Your task to perform on an android device: add a label to a message in the gmail app Image 0: 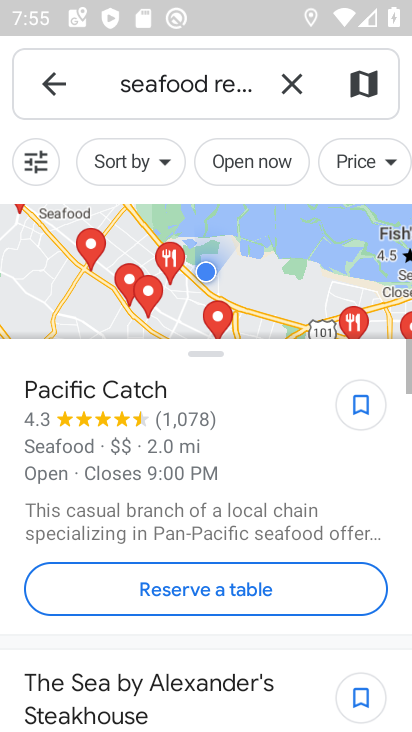
Step 0: press home button
Your task to perform on an android device: add a label to a message in the gmail app Image 1: 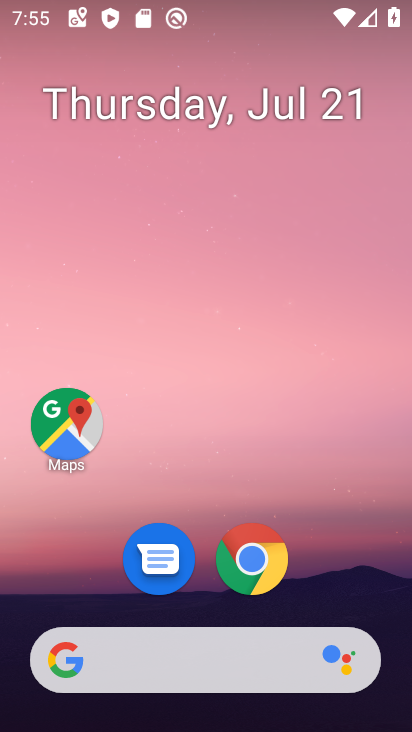
Step 1: click (288, 22)
Your task to perform on an android device: add a label to a message in the gmail app Image 2: 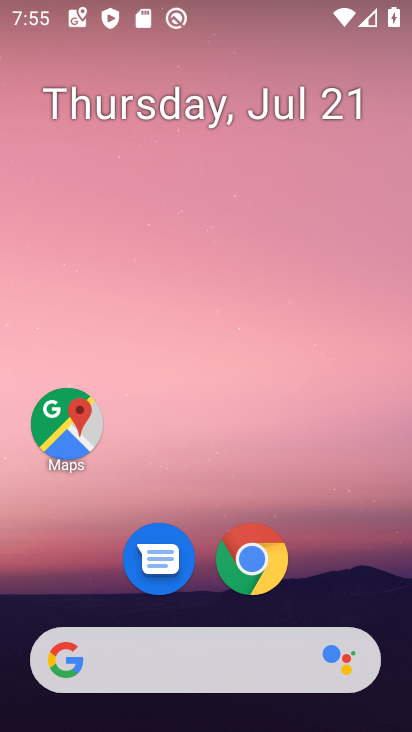
Step 2: drag from (263, 675) to (308, 192)
Your task to perform on an android device: add a label to a message in the gmail app Image 3: 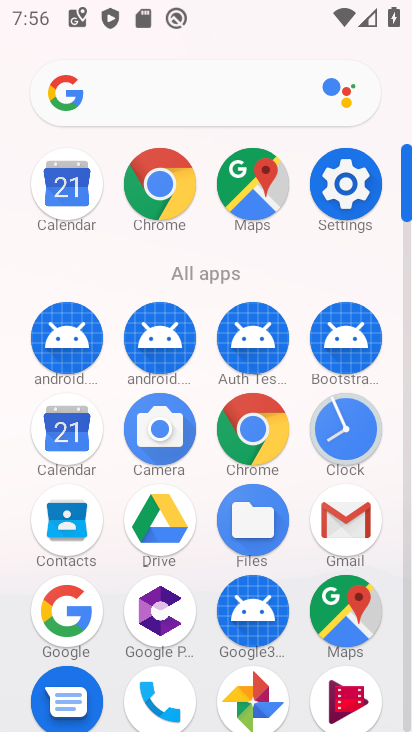
Step 3: click (349, 531)
Your task to perform on an android device: add a label to a message in the gmail app Image 4: 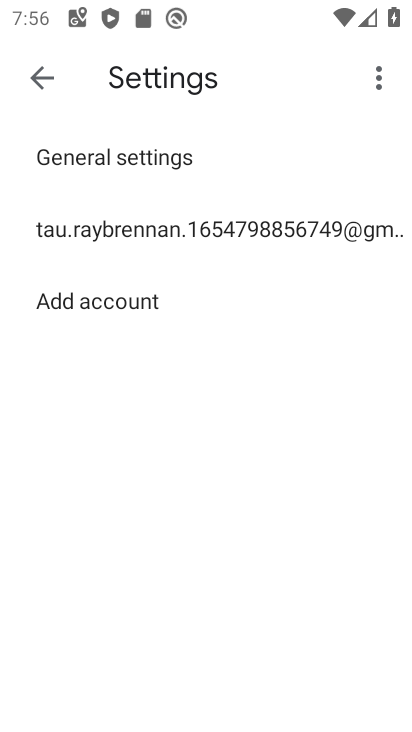
Step 4: click (38, 84)
Your task to perform on an android device: add a label to a message in the gmail app Image 5: 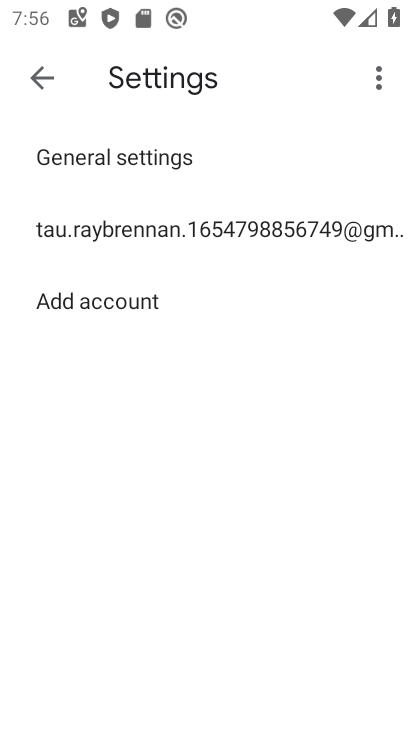
Step 5: click (39, 80)
Your task to perform on an android device: add a label to a message in the gmail app Image 6: 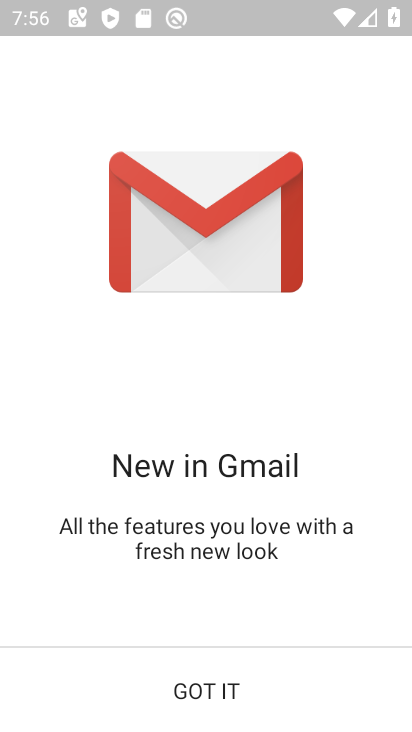
Step 6: click (170, 674)
Your task to perform on an android device: add a label to a message in the gmail app Image 7: 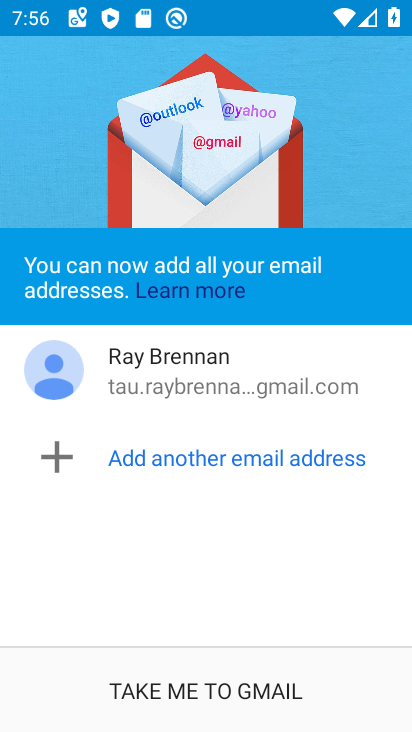
Step 7: click (212, 703)
Your task to perform on an android device: add a label to a message in the gmail app Image 8: 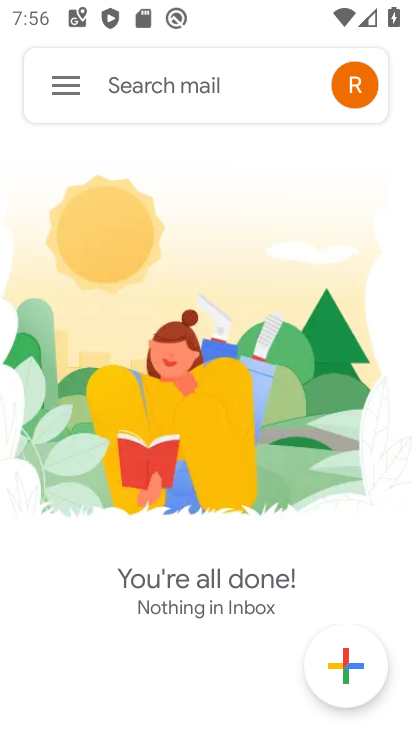
Step 8: click (70, 94)
Your task to perform on an android device: add a label to a message in the gmail app Image 9: 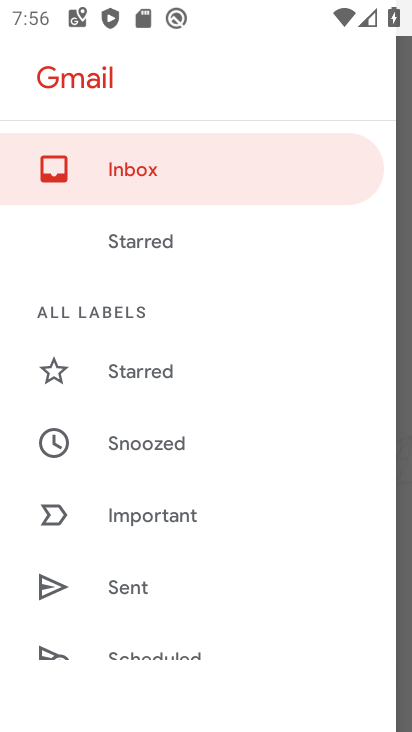
Step 9: drag from (172, 562) to (275, 250)
Your task to perform on an android device: add a label to a message in the gmail app Image 10: 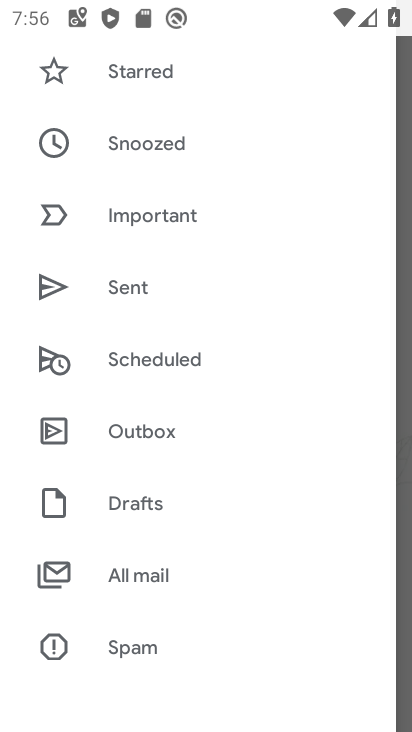
Step 10: click (186, 584)
Your task to perform on an android device: add a label to a message in the gmail app Image 11: 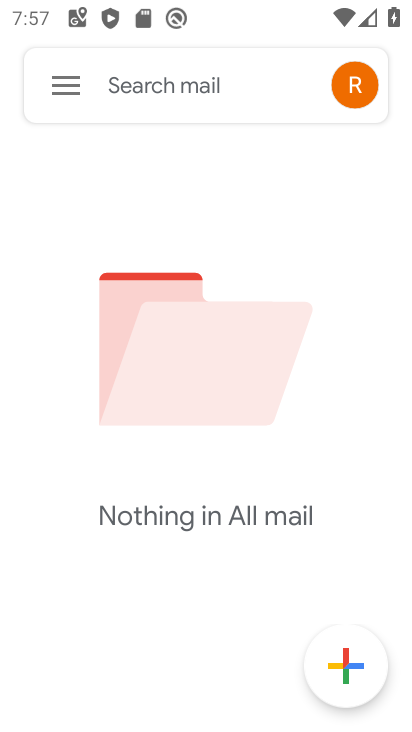
Step 11: task complete